Your task to perform on an android device: Is it going to rain tomorrow? Image 0: 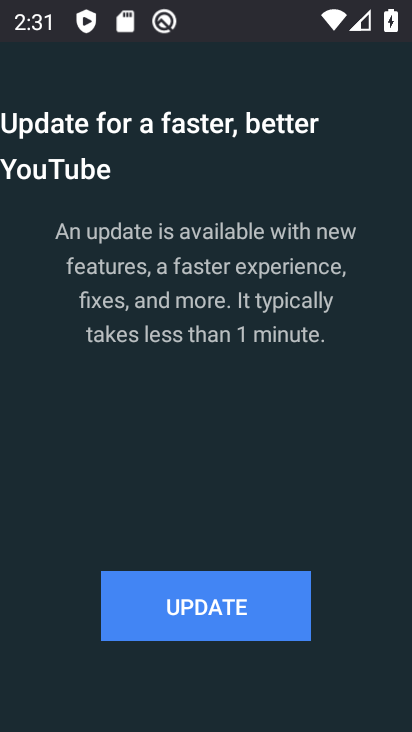
Step 0: press home button
Your task to perform on an android device: Is it going to rain tomorrow? Image 1: 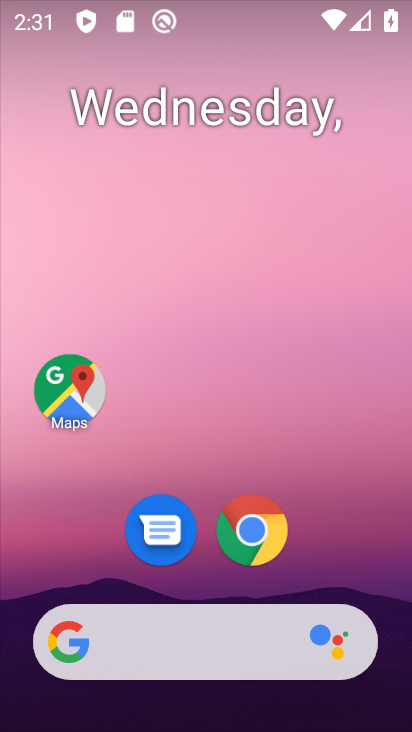
Step 1: drag from (11, 268) to (309, 204)
Your task to perform on an android device: Is it going to rain tomorrow? Image 2: 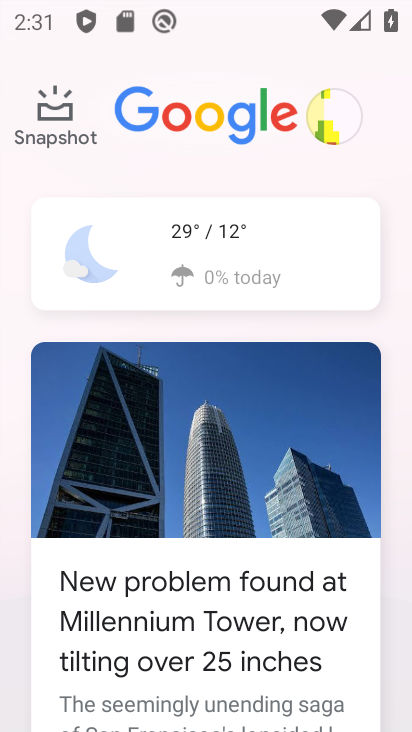
Step 2: click (99, 272)
Your task to perform on an android device: Is it going to rain tomorrow? Image 3: 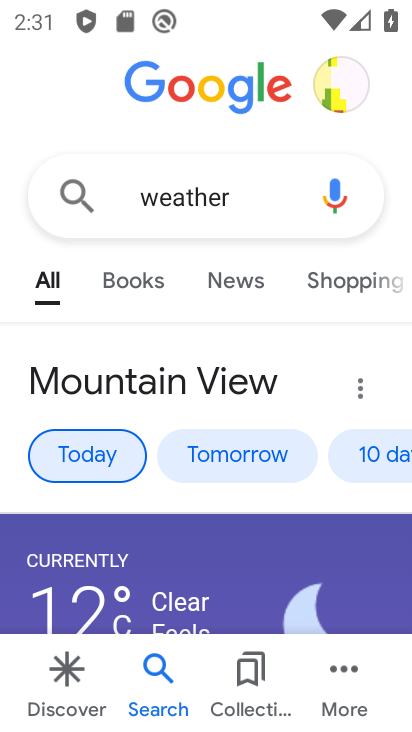
Step 3: click (238, 459)
Your task to perform on an android device: Is it going to rain tomorrow? Image 4: 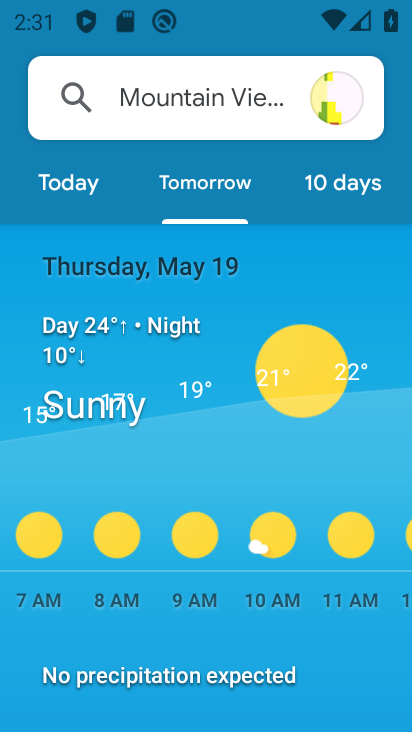
Step 4: task complete